Your task to perform on an android device: Open privacy settings Image 0: 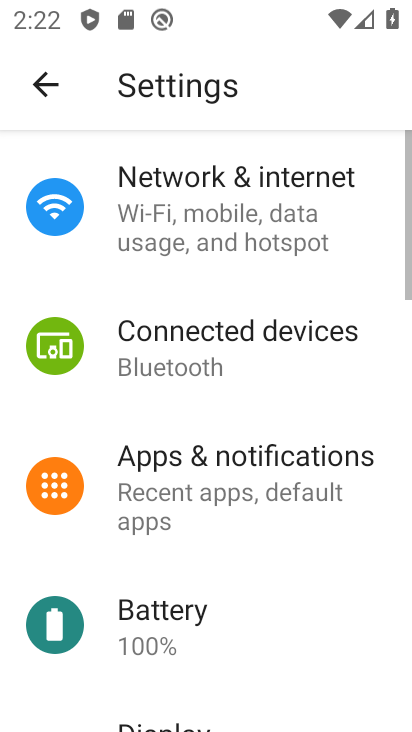
Step 0: press home button
Your task to perform on an android device: Open privacy settings Image 1: 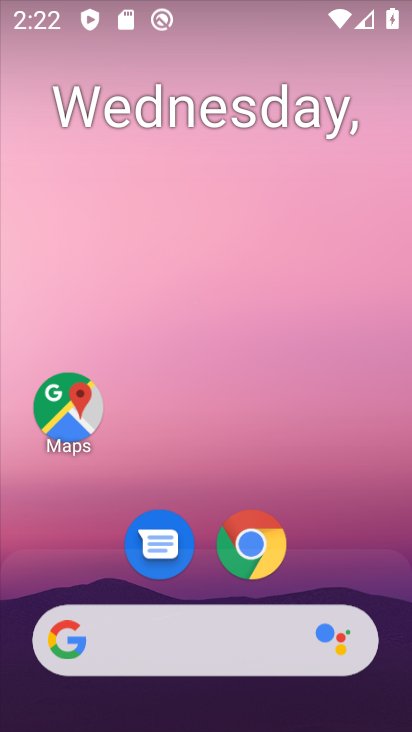
Step 1: drag from (203, 632) to (301, 72)
Your task to perform on an android device: Open privacy settings Image 2: 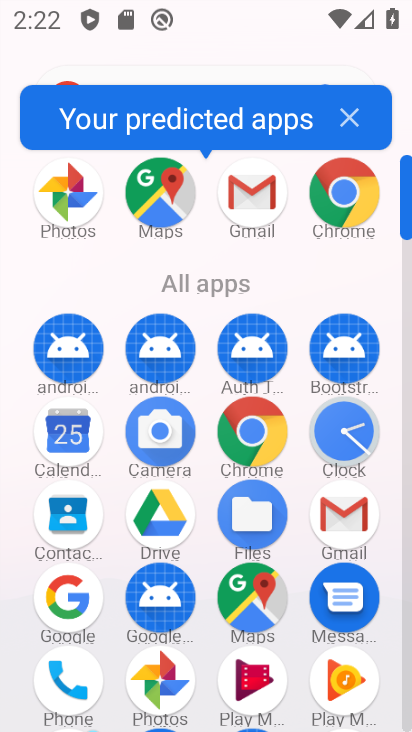
Step 2: drag from (210, 586) to (314, 214)
Your task to perform on an android device: Open privacy settings Image 3: 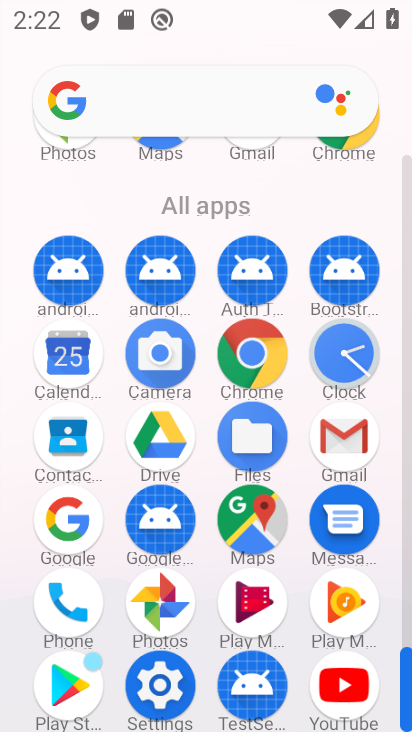
Step 3: click (159, 675)
Your task to perform on an android device: Open privacy settings Image 4: 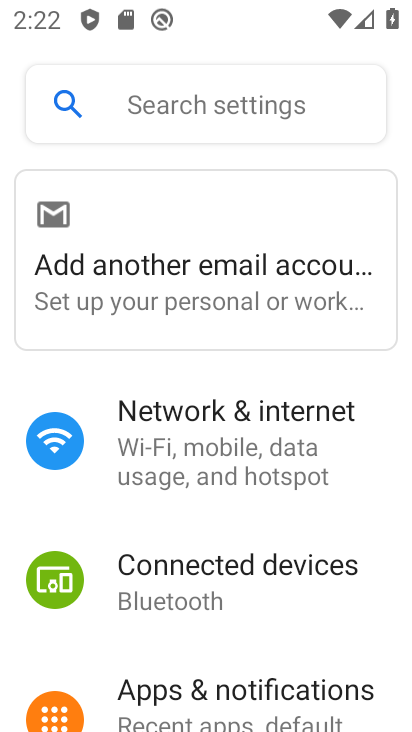
Step 4: drag from (225, 644) to (311, 98)
Your task to perform on an android device: Open privacy settings Image 5: 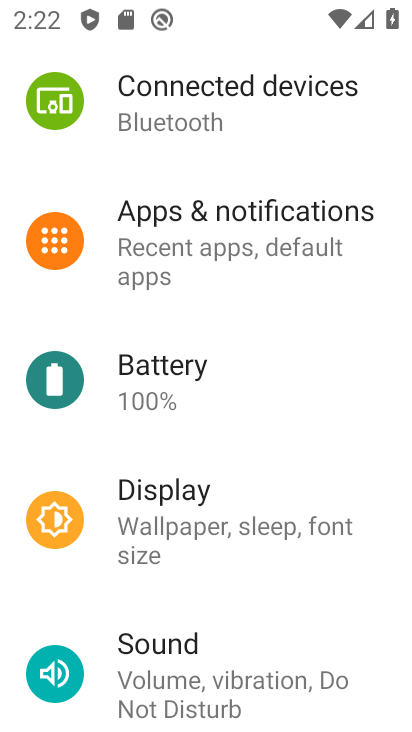
Step 5: drag from (208, 605) to (331, 148)
Your task to perform on an android device: Open privacy settings Image 6: 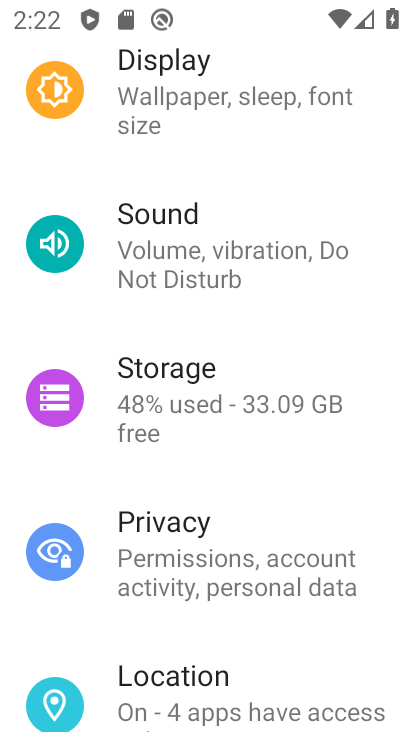
Step 6: click (170, 519)
Your task to perform on an android device: Open privacy settings Image 7: 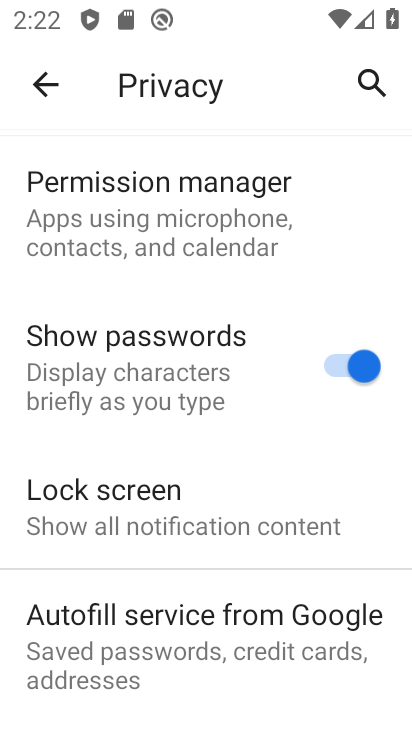
Step 7: task complete